Your task to perform on an android device: toggle pop-ups in chrome Image 0: 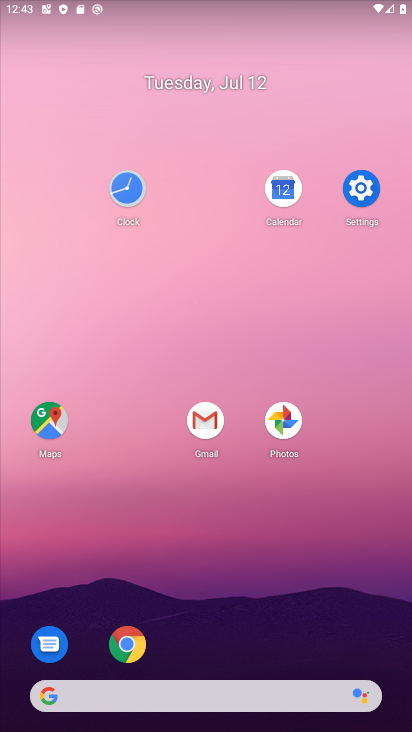
Step 0: click (117, 638)
Your task to perform on an android device: toggle pop-ups in chrome Image 1: 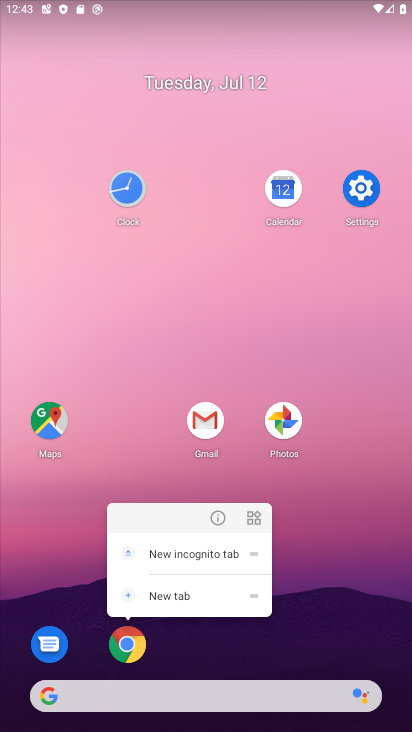
Step 1: click (128, 646)
Your task to perform on an android device: toggle pop-ups in chrome Image 2: 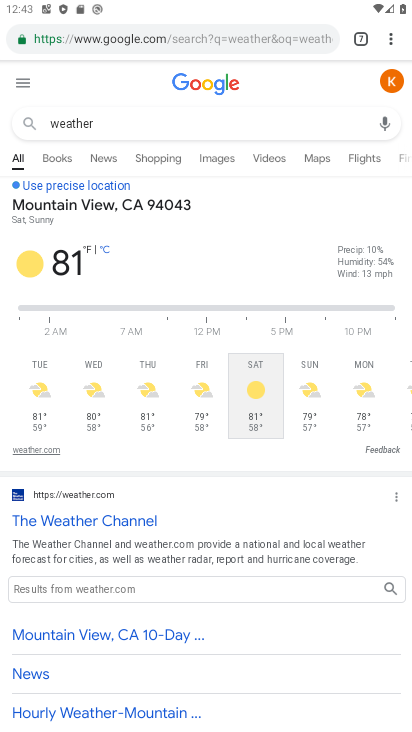
Step 2: click (387, 42)
Your task to perform on an android device: toggle pop-ups in chrome Image 3: 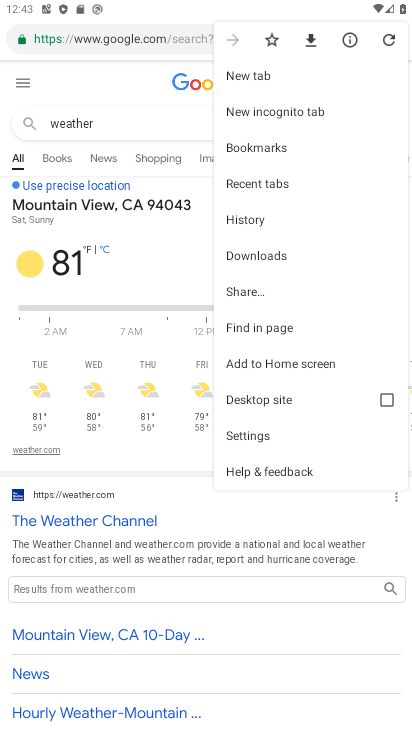
Step 3: click (291, 430)
Your task to perform on an android device: toggle pop-ups in chrome Image 4: 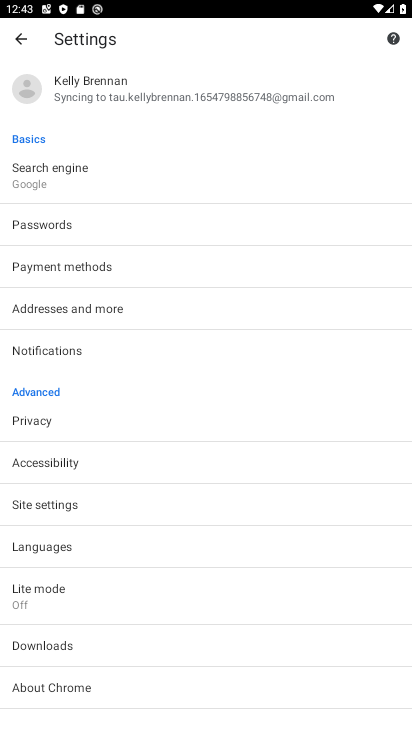
Step 4: drag from (291, 430) to (294, 114)
Your task to perform on an android device: toggle pop-ups in chrome Image 5: 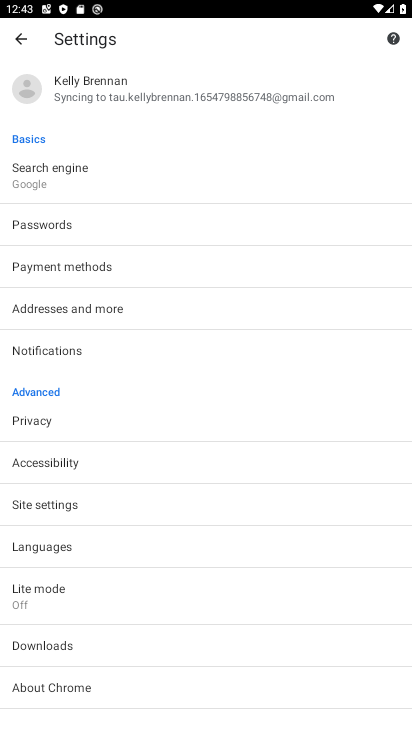
Step 5: click (133, 502)
Your task to perform on an android device: toggle pop-ups in chrome Image 6: 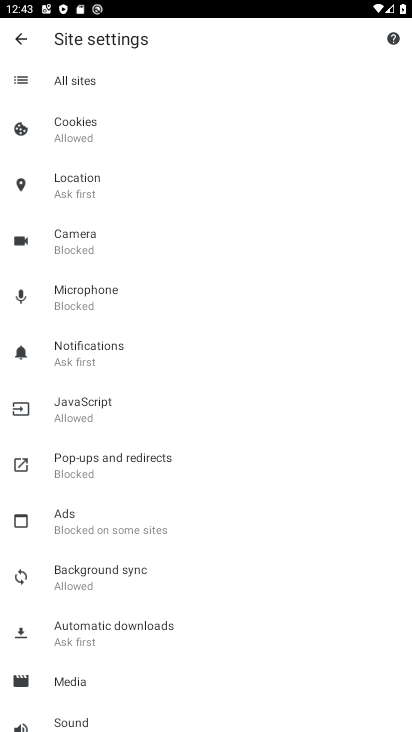
Step 6: drag from (133, 502) to (148, 289)
Your task to perform on an android device: toggle pop-ups in chrome Image 7: 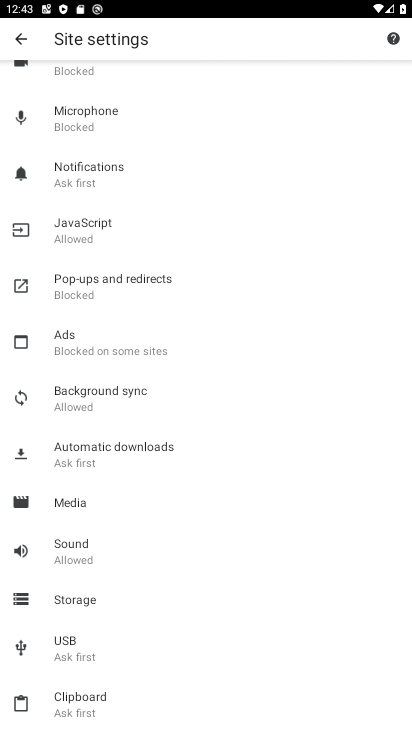
Step 7: drag from (126, 582) to (171, 315)
Your task to perform on an android device: toggle pop-ups in chrome Image 8: 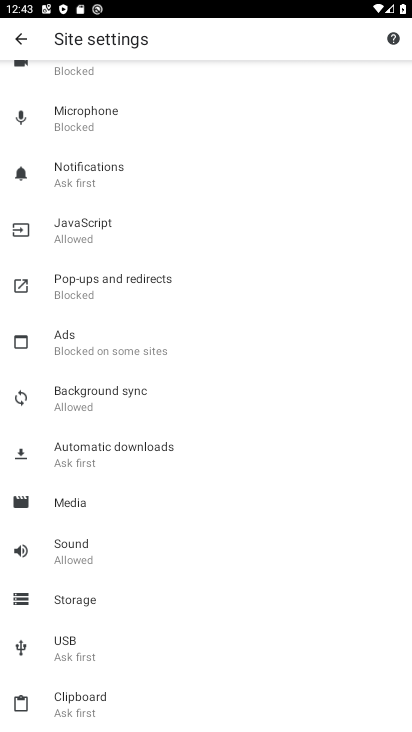
Step 8: click (182, 289)
Your task to perform on an android device: toggle pop-ups in chrome Image 9: 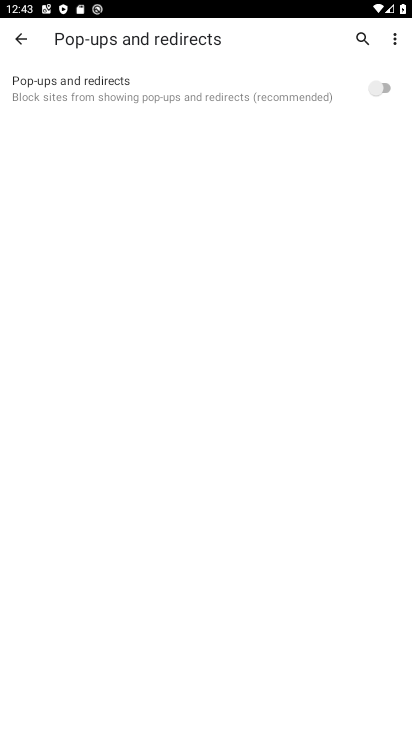
Step 9: click (378, 79)
Your task to perform on an android device: toggle pop-ups in chrome Image 10: 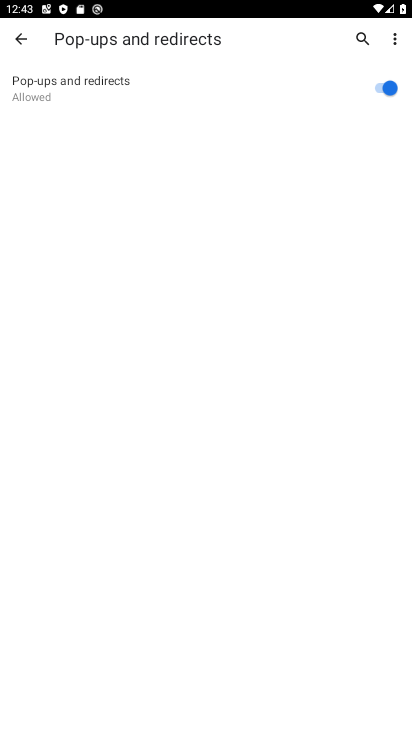
Step 10: task complete